Your task to perform on an android device: Go to ESPN.com Image 0: 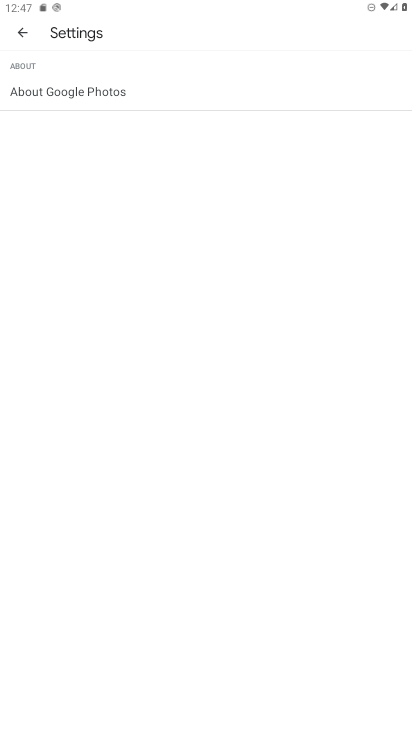
Step 0: press home button
Your task to perform on an android device: Go to ESPN.com Image 1: 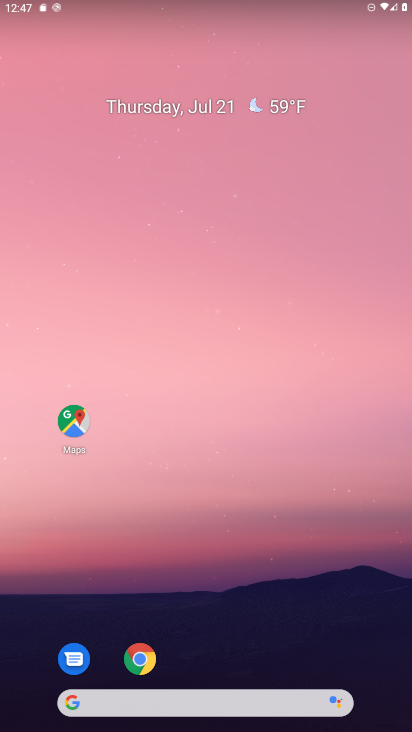
Step 1: click (140, 664)
Your task to perform on an android device: Go to ESPN.com Image 2: 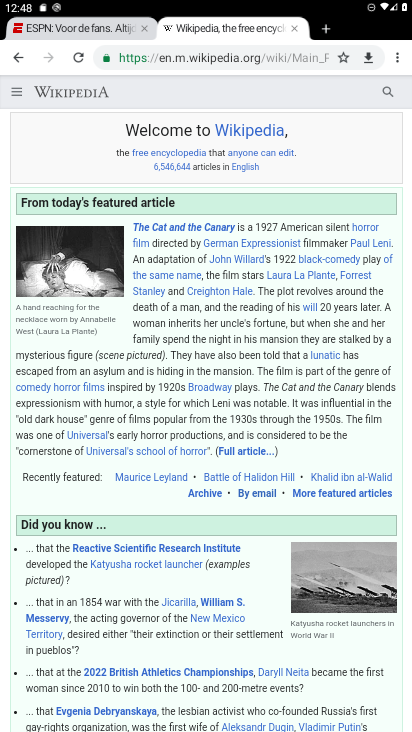
Step 2: click (292, 30)
Your task to perform on an android device: Go to ESPN.com Image 3: 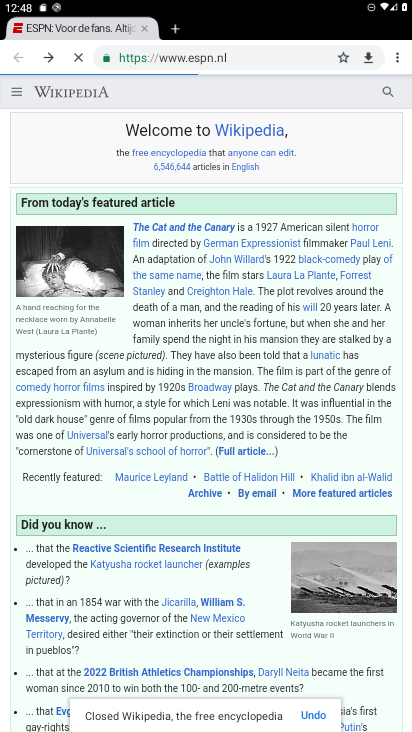
Step 3: click (145, 28)
Your task to perform on an android device: Go to ESPN.com Image 4: 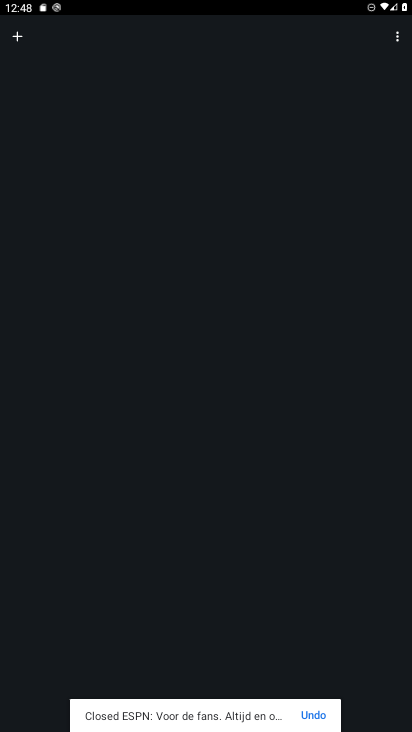
Step 4: click (16, 38)
Your task to perform on an android device: Go to ESPN.com Image 5: 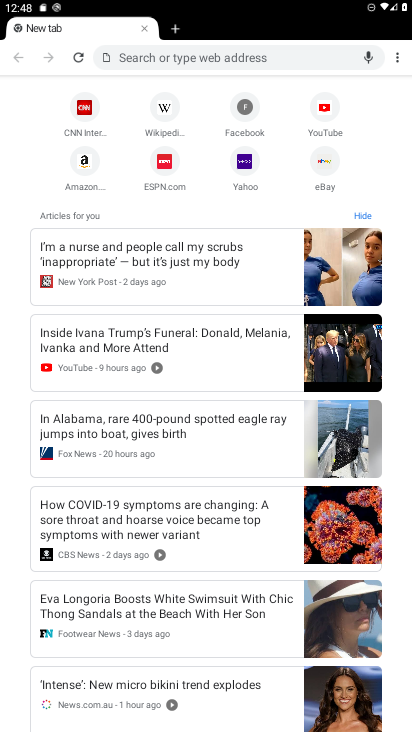
Step 5: click (167, 165)
Your task to perform on an android device: Go to ESPN.com Image 6: 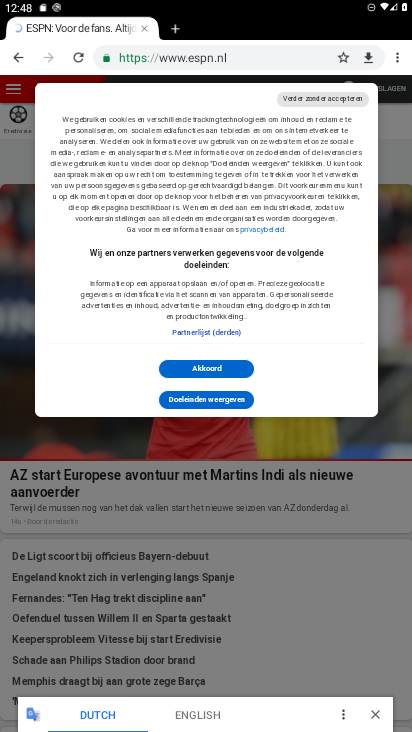
Step 6: click (205, 366)
Your task to perform on an android device: Go to ESPN.com Image 7: 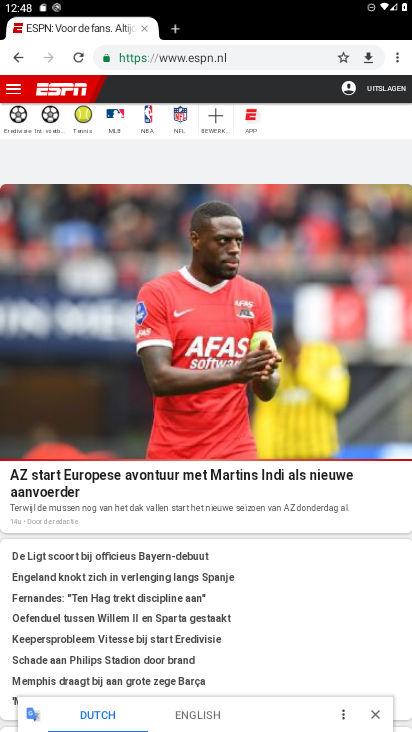
Step 7: task complete